Your task to perform on an android device: open a bookmark in the chrome app Image 0: 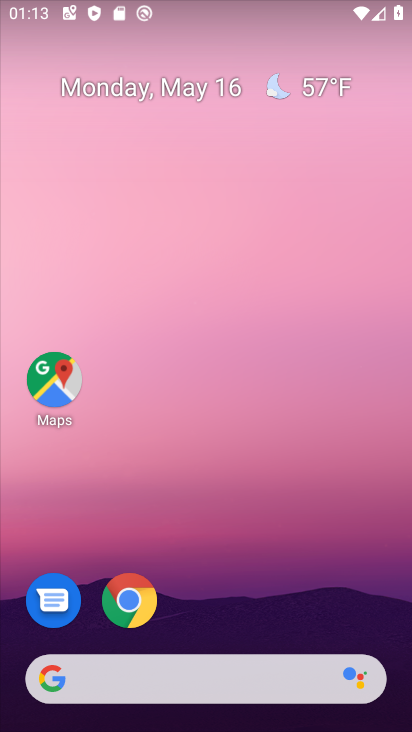
Step 0: click (130, 600)
Your task to perform on an android device: open a bookmark in the chrome app Image 1: 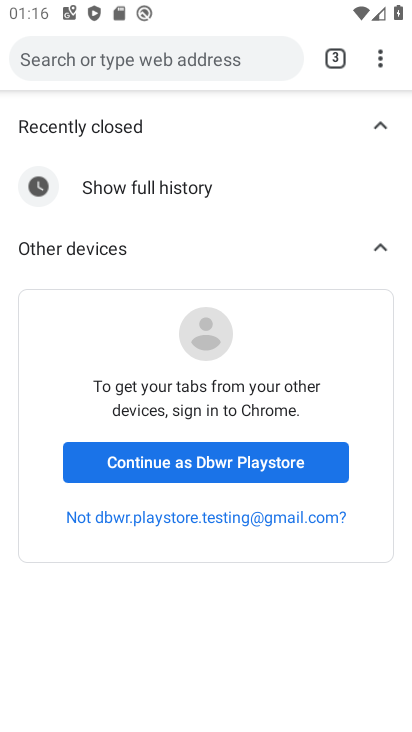
Step 1: click (376, 64)
Your task to perform on an android device: open a bookmark in the chrome app Image 2: 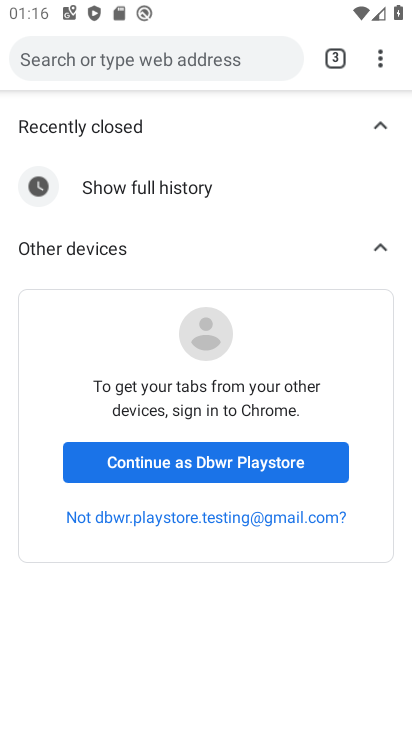
Step 2: task complete